Your task to perform on an android device: Show me productivity apps on the Play Store Image 0: 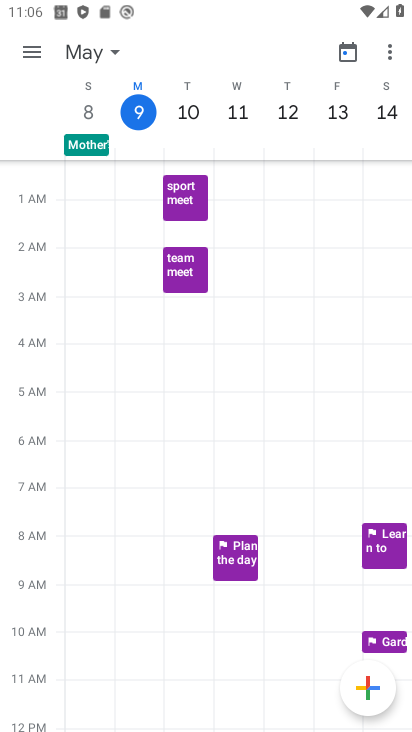
Step 0: press home button
Your task to perform on an android device: Show me productivity apps on the Play Store Image 1: 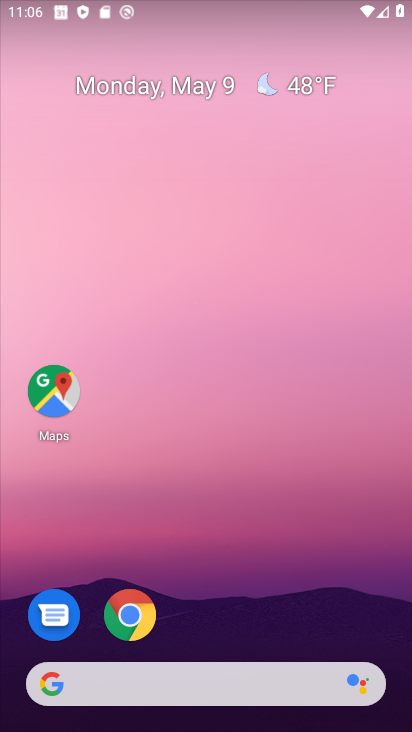
Step 1: drag from (231, 607) to (201, 62)
Your task to perform on an android device: Show me productivity apps on the Play Store Image 2: 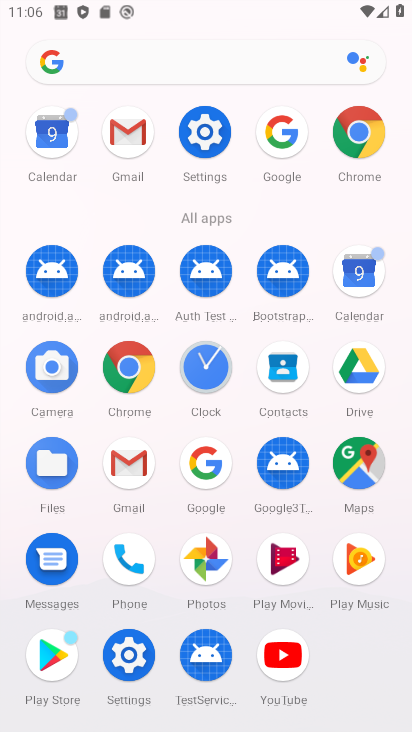
Step 2: click (47, 654)
Your task to perform on an android device: Show me productivity apps on the Play Store Image 3: 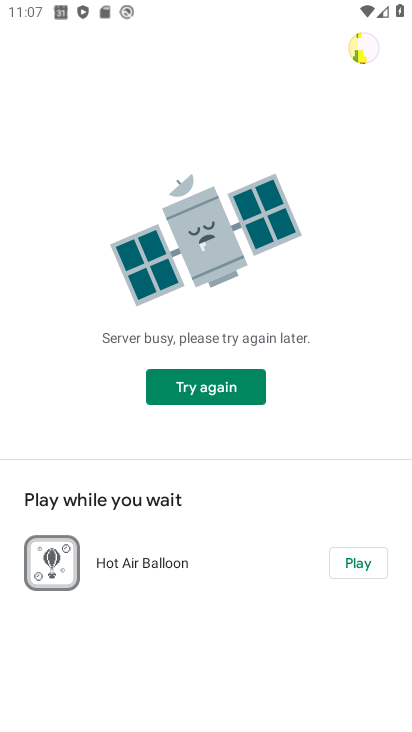
Step 3: click (236, 383)
Your task to perform on an android device: Show me productivity apps on the Play Store Image 4: 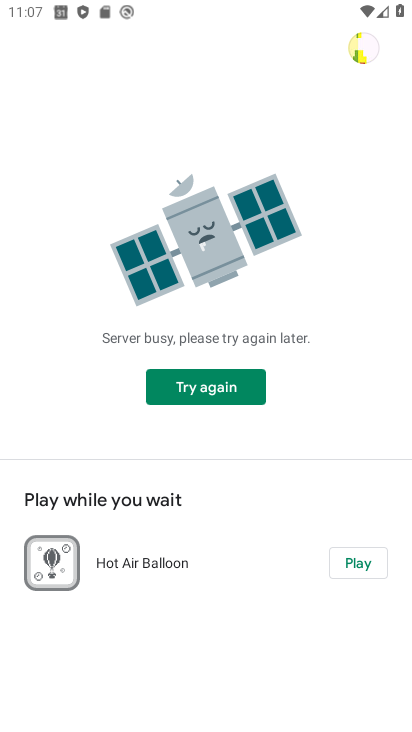
Step 4: click (235, 381)
Your task to perform on an android device: Show me productivity apps on the Play Store Image 5: 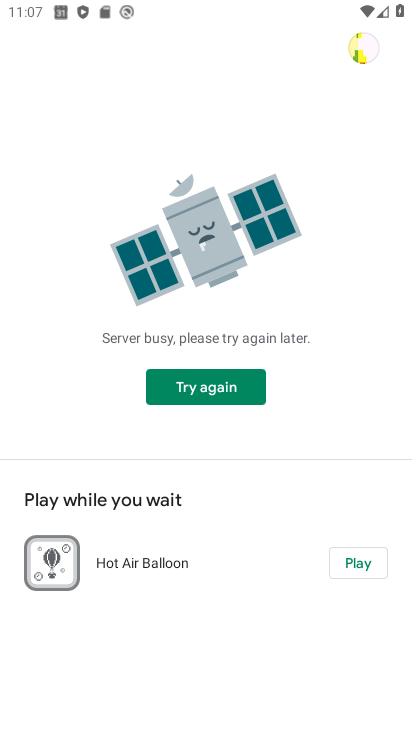
Step 5: click (234, 380)
Your task to perform on an android device: Show me productivity apps on the Play Store Image 6: 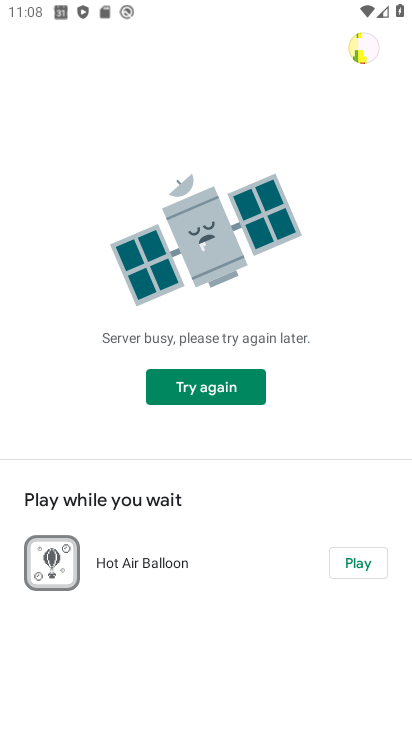
Step 6: task complete